Your task to perform on an android device: toggle airplane mode Image 0: 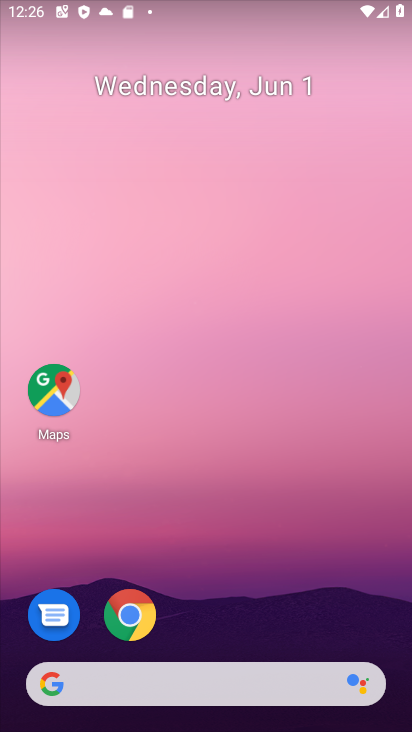
Step 0: task complete